Your task to perform on an android device: turn on airplane mode Image 0: 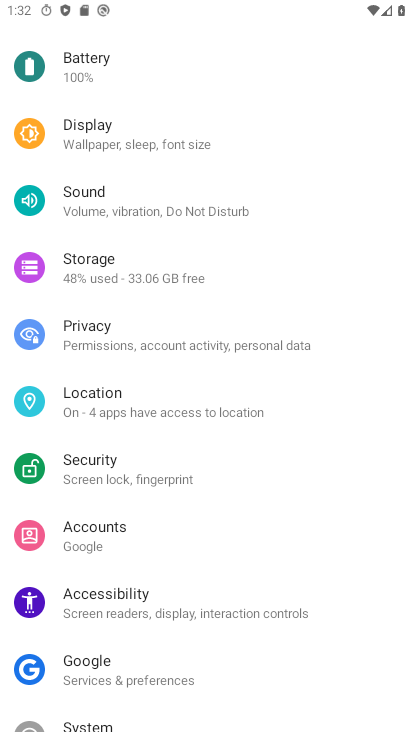
Step 0: drag from (284, 105) to (200, 572)
Your task to perform on an android device: turn on airplane mode Image 1: 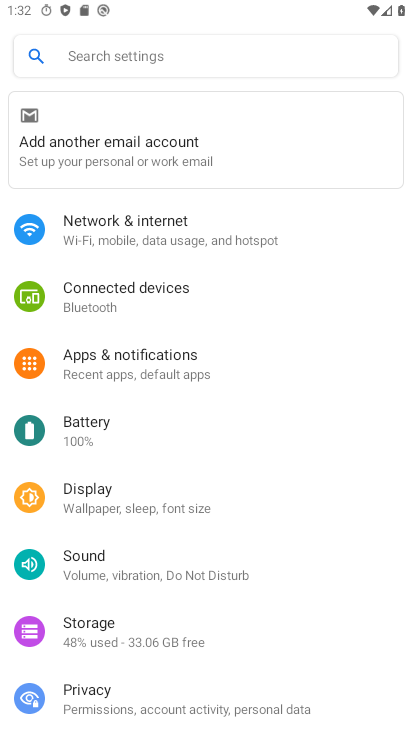
Step 1: click (194, 217)
Your task to perform on an android device: turn on airplane mode Image 2: 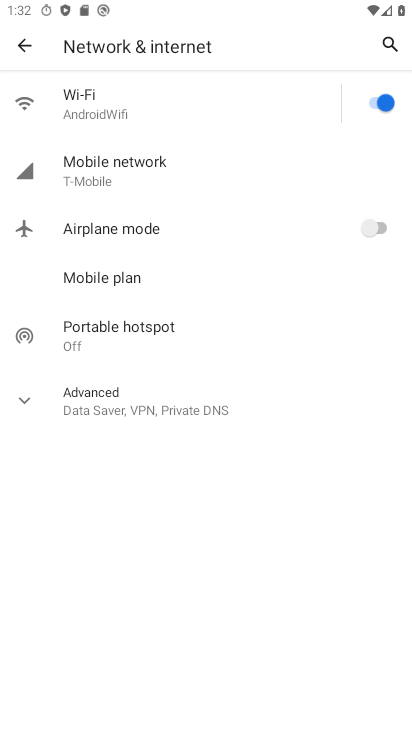
Step 2: click (374, 228)
Your task to perform on an android device: turn on airplane mode Image 3: 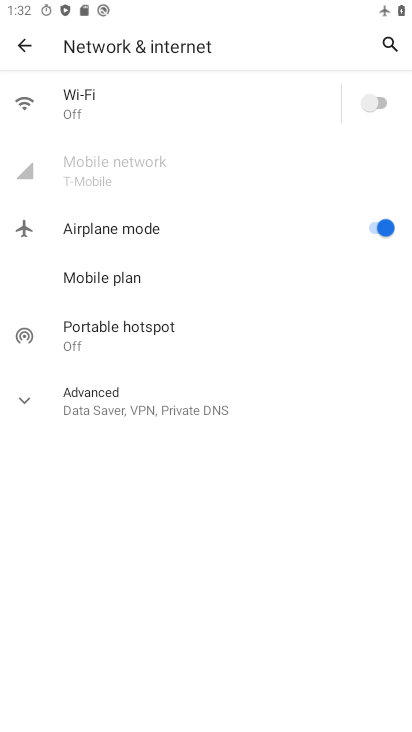
Step 3: task complete